Your task to perform on an android device: Open the web browser Image 0: 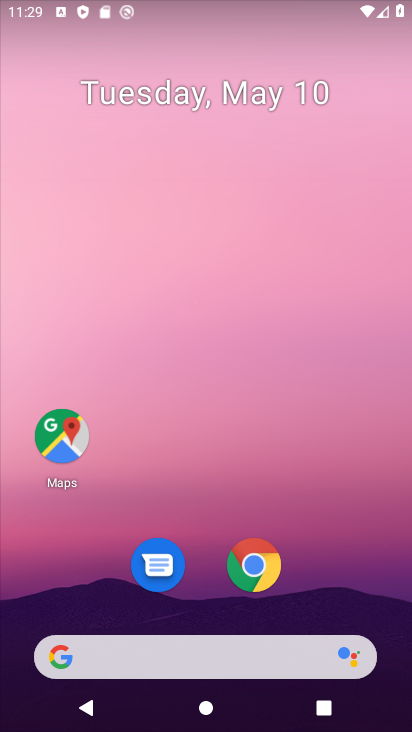
Step 0: press home button
Your task to perform on an android device: Open the web browser Image 1: 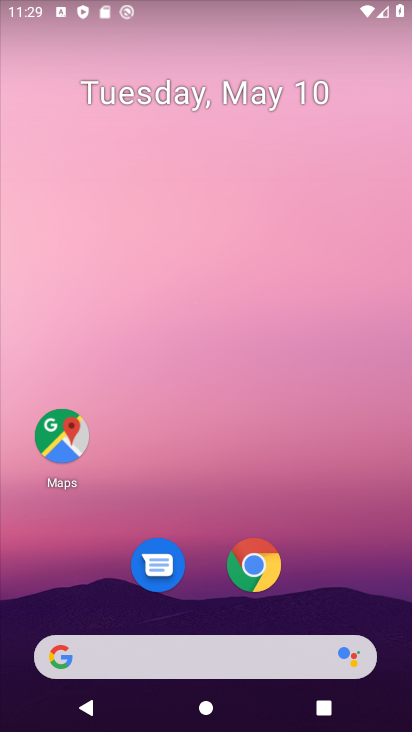
Step 1: task complete